Your task to perform on an android device: turn on priority inbox in the gmail app Image 0: 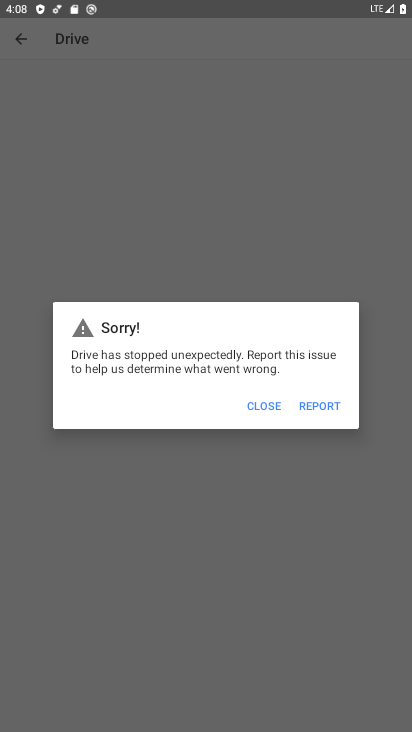
Step 0: press home button
Your task to perform on an android device: turn on priority inbox in the gmail app Image 1: 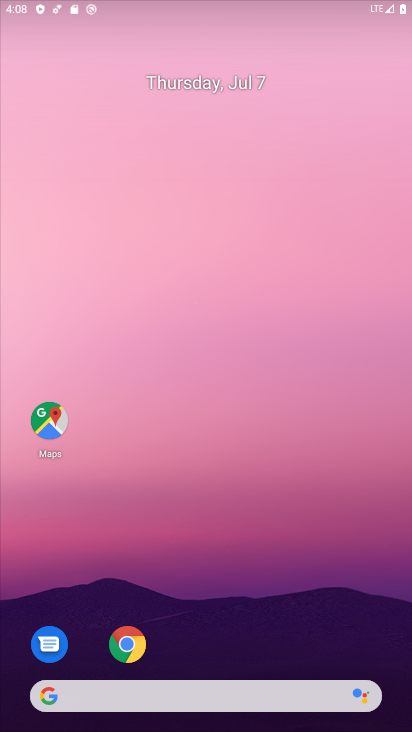
Step 1: drag from (214, 576) to (214, 190)
Your task to perform on an android device: turn on priority inbox in the gmail app Image 2: 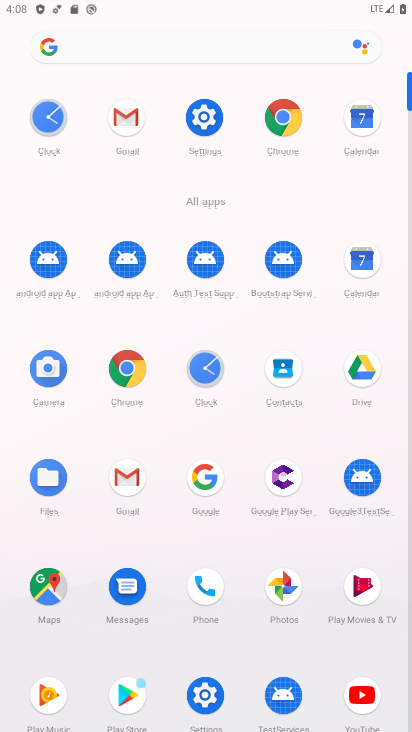
Step 2: click (153, 122)
Your task to perform on an android device: turn on priority inbox in the gmail app Image 3: 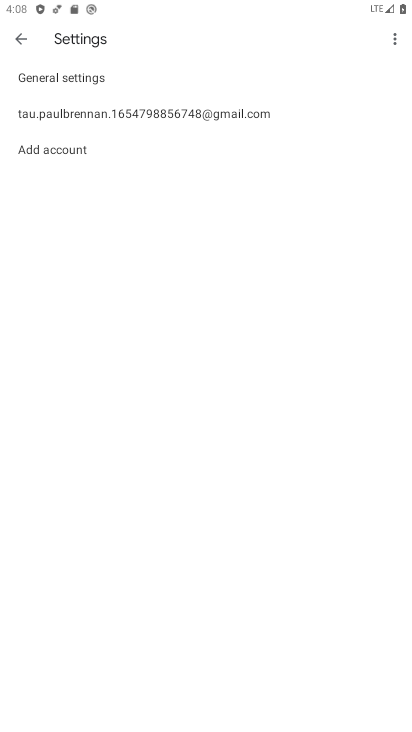
Step 3: click (153, 122)
Your task to perform on an android device: turn on priority inbox in the gmail app Image 4: 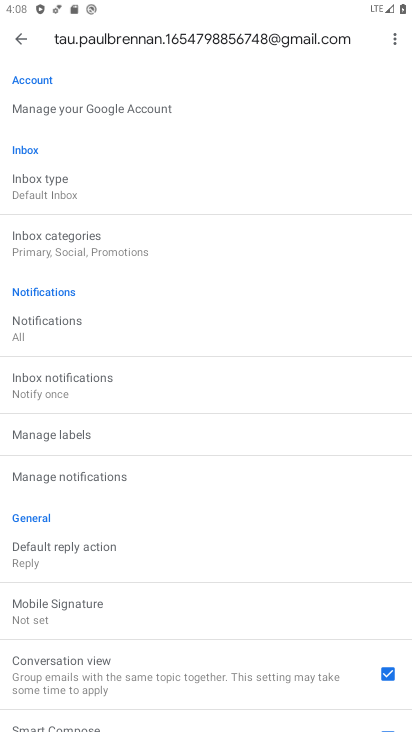
Step 4: click (65, 236)
Your task to perform on an android device: turn on priority inbox in the gmail app Image 5: 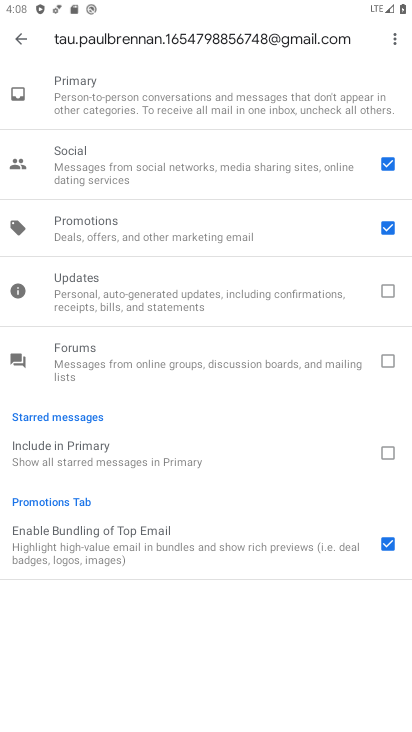
Step 5: click (13, 42)
Your task to perform on an android device: turn on priority inbox in the gmail app Image 6: 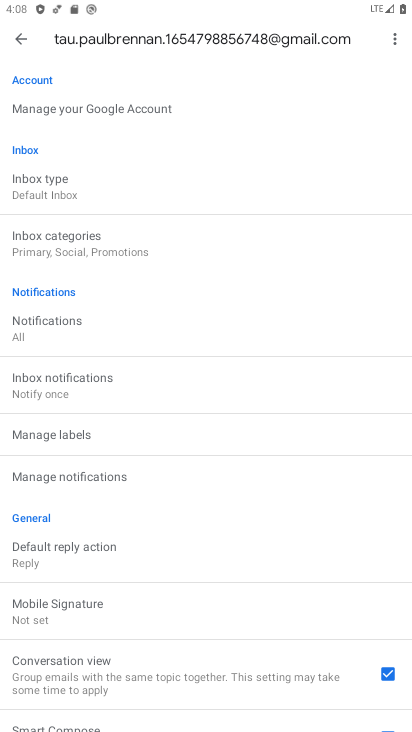
Step 6: click (82, 183)
Your task to perform on an android device: turn on priority inbox in the gmail app Image 7: 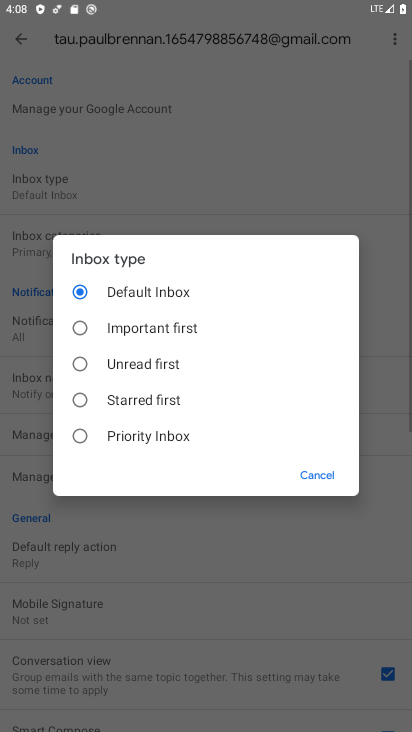
Step 7: click (122, 428)
Your task to perform on an android device: turn on priority inbox in the gmail app Image 8: 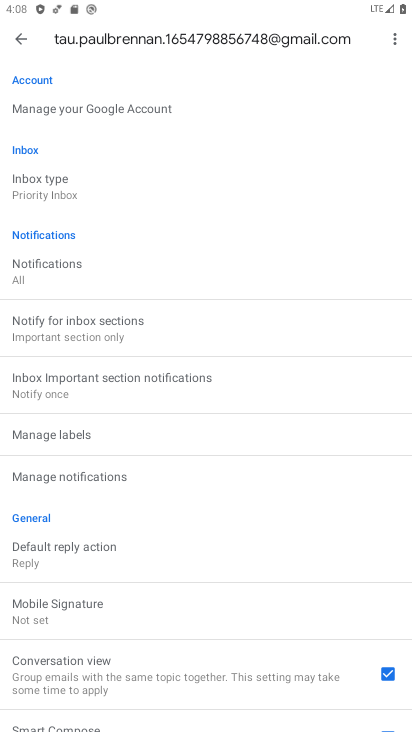
Step 8: task complete